Your task to perform on an android device: open device folders in google photos Image 0: 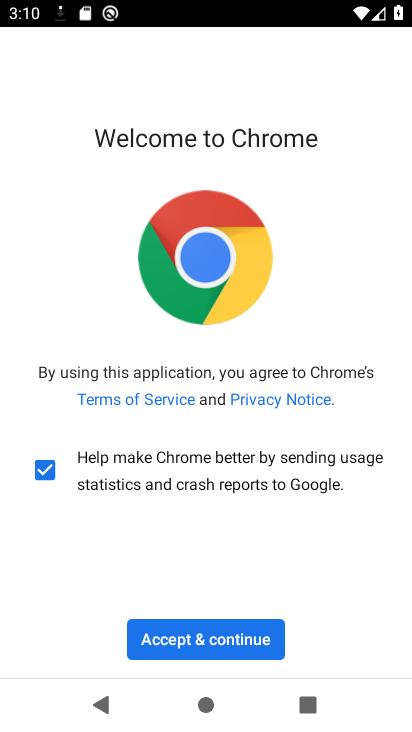
Step 0: press home button
Your task to perform on an android device: open device folders in google photos Image 1: 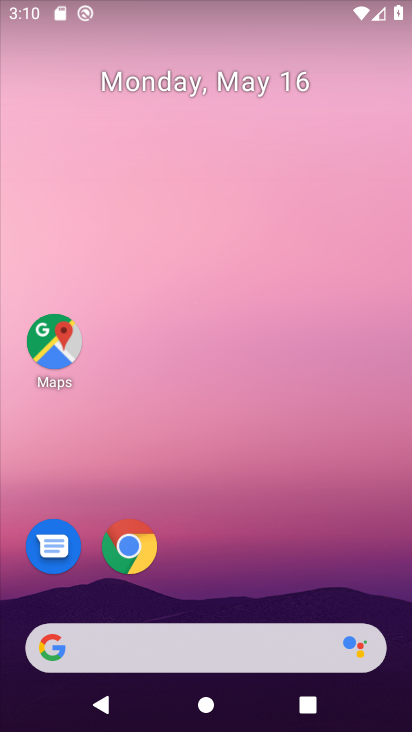
Step 1: drag from (353, 577) to (350, 136)
Your task to perform on an android device: open device folders in google photos Image 2: 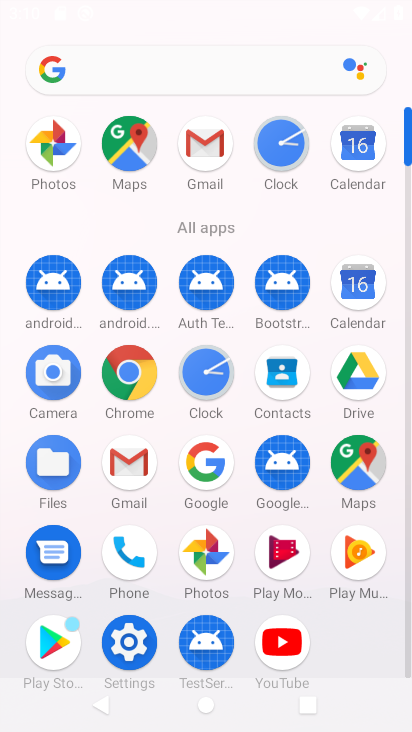
Step 2: click (211, 568)
Your task to perform on an android device: open device folders in google photos Image 3: 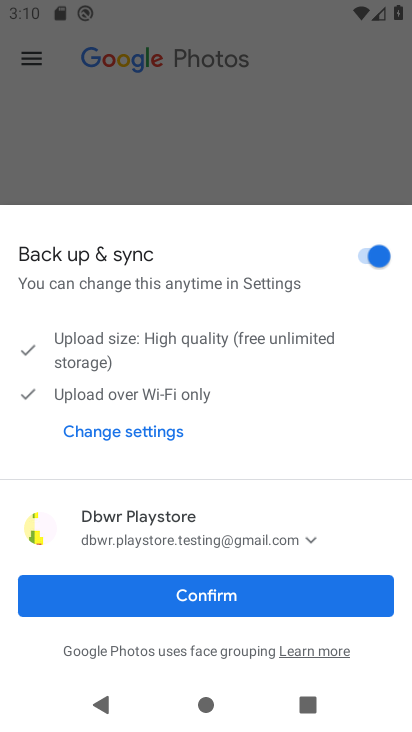
Step 3: click (219, 602)
Your task to perform on an android device: open device folders in google photos Image 4: 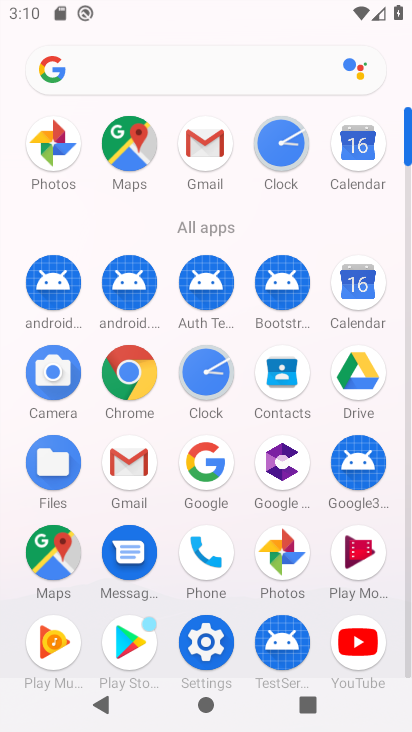
Step 4: click (220, 567)
Your task to perform on an android device: open device folders in google photos Image 5: 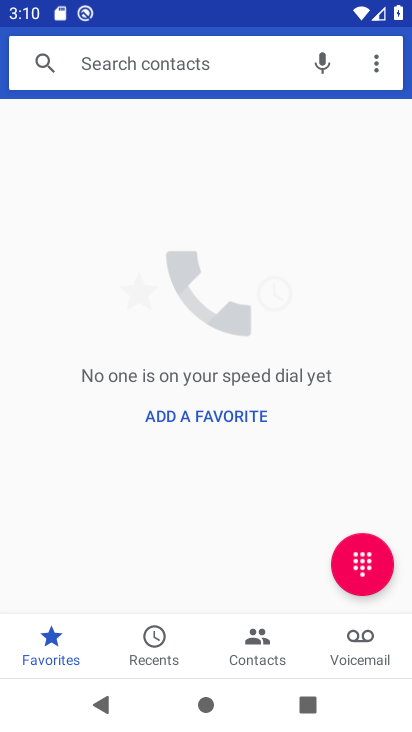
Step 5: press back button
Your task to perform on an android device: open device folders in google photos Image 6: 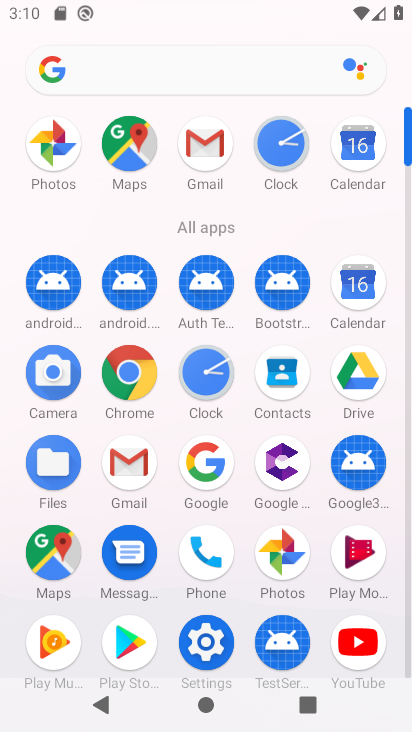
Step 6: click (286, 560)
Your task to perform on an android device: open device folders in google photos Image 7: 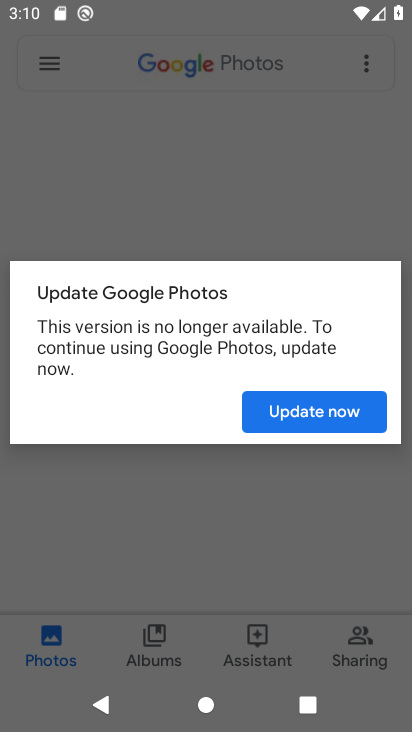
Step 7: click (250, 417)
Your task to perform on an android device: open device folders in google photos Image 8: 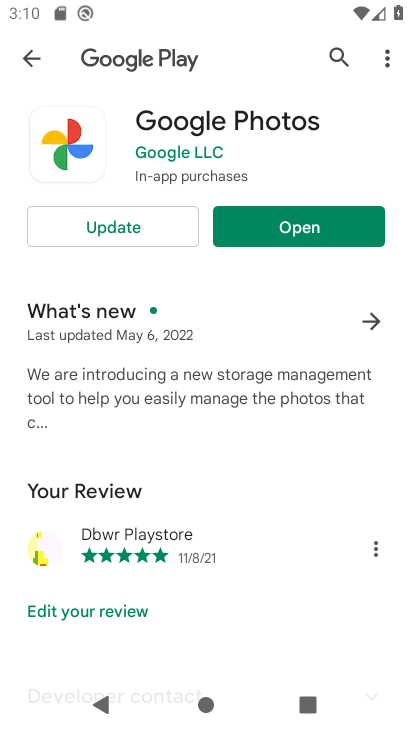
Step 8: click (126, 228)
Your task to perform on an android device: open device folders in google photos Image 9: 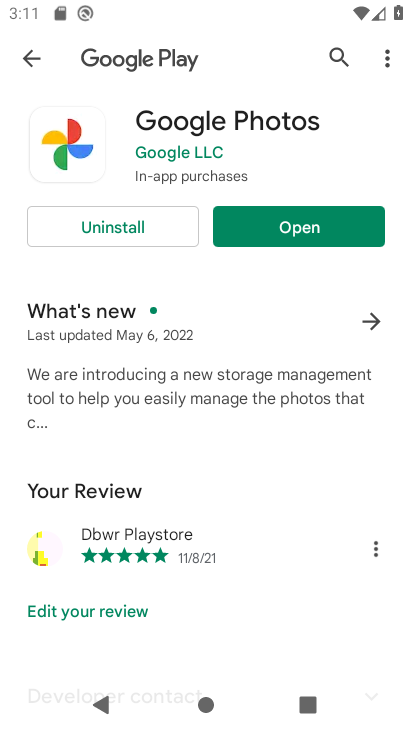
Step 9: click (288, 218)
Your task to perform on an android device: open device folders in google photos Image 10: 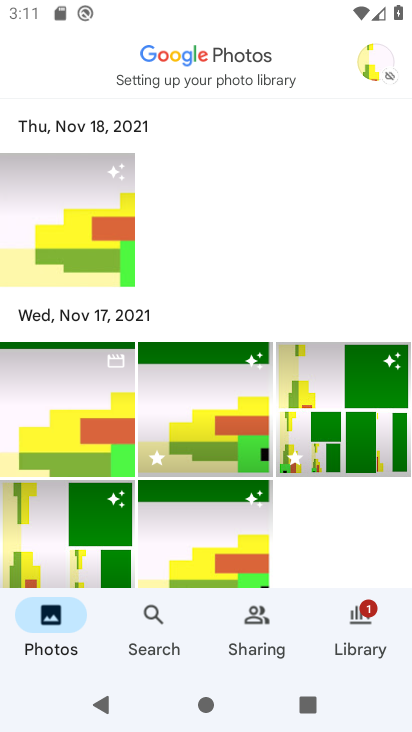
Step 10: click (351, 619)
Your task to perform on an android device: open device folders in google photos Image 11: 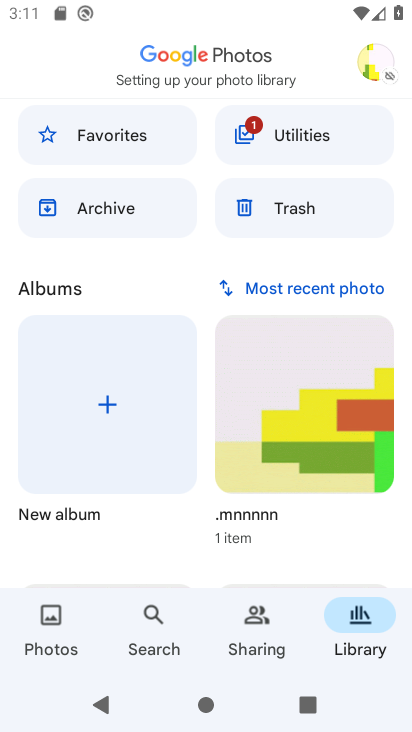
Step 11: task complete